Your task to perform on an android device: allow notifications from all sites in the chrome app Image 0: 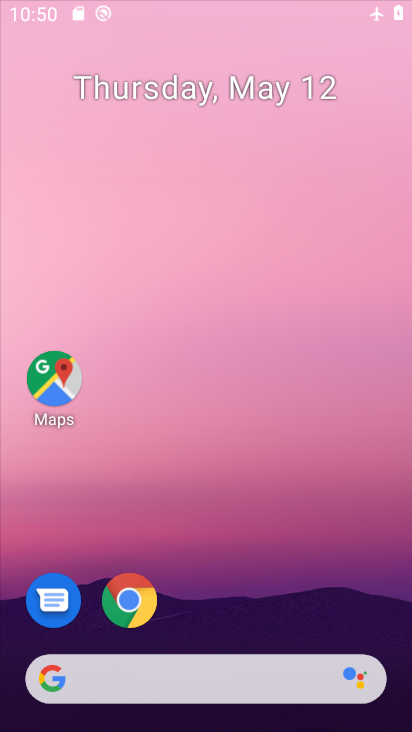
Step 0: click (132, 107)
Your task to perform on an android device: allow notifications from all sites in the chrome app Image 1: 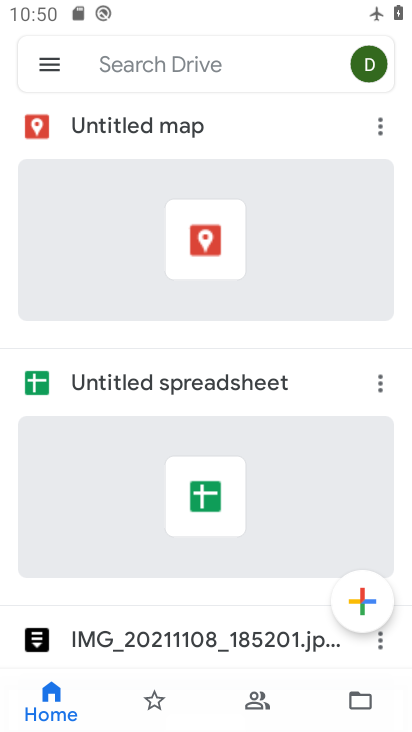
Step 1: press home button
Your task to perform on an android device: allow notifications from all sites in the chrome app Image 2: 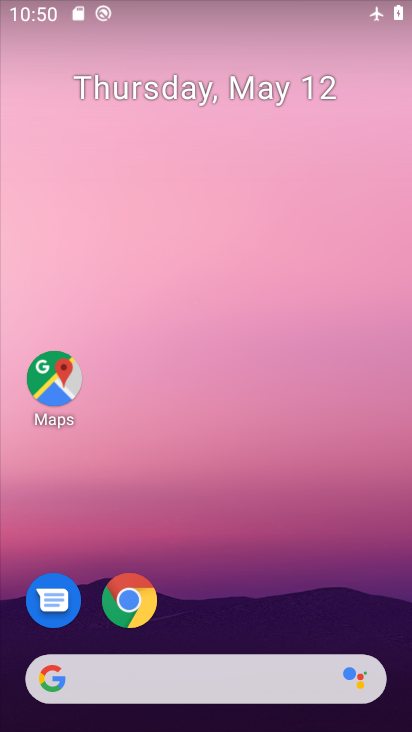
Step 2: click (128, 592)
Your task to perform on an android device: allow notifications from all sites in the chrome app Image 3: 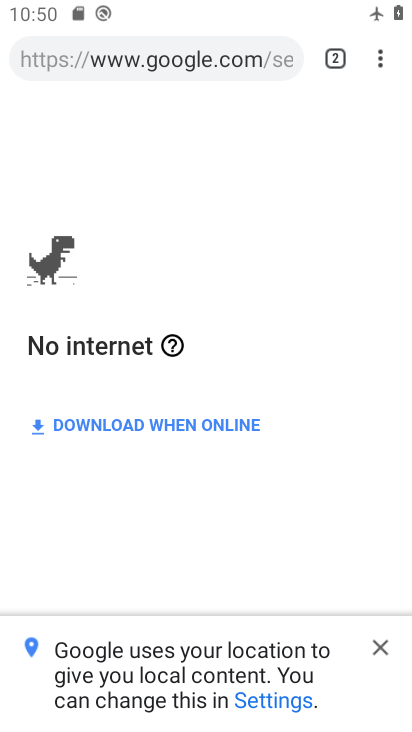
Step 3: click (378, 53)
Your task to perform on an android device: allow notifications from all sites in the chrome app Image 4: 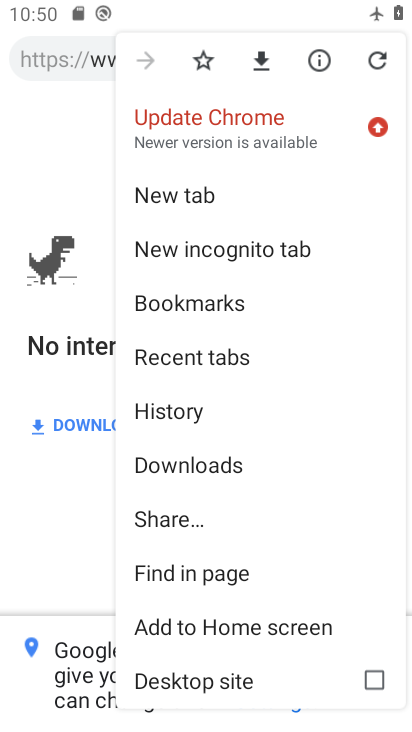
Step 4: drag from (203, 638) to (262, 388)
Your task to perform on an android device: allow notifications from all sites in the chrome app Image 5: 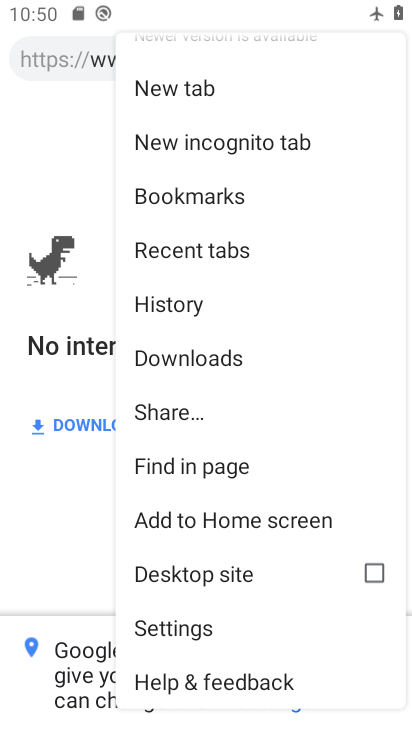
Step 5: click (167, 635)
Your task to perform on an android device: allow notifications from all sites in the chrome app Image 6: 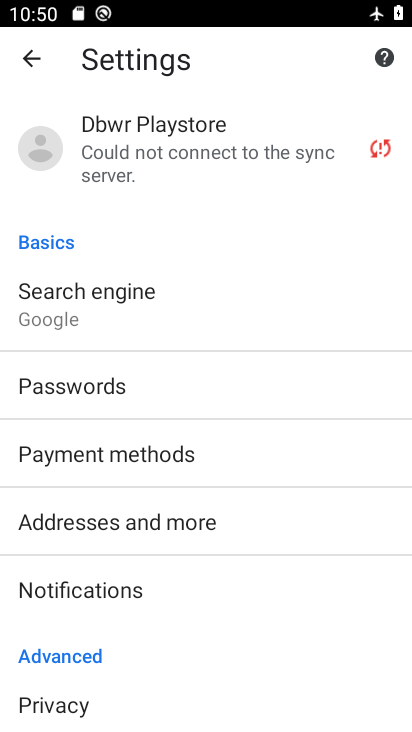
Step 6: click (92, 589)
Your task to perform on an android device: allow notifications from all sites in the chrome app Image 7: 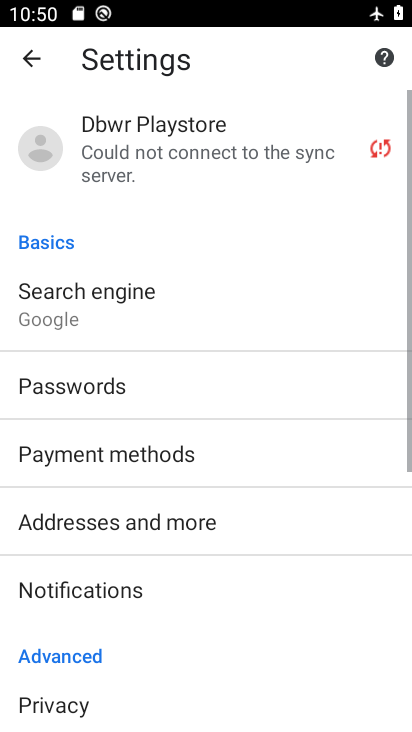
Step 7: task complete